Your task to perform on an android device: Open Chrome and go to settings Image 0: 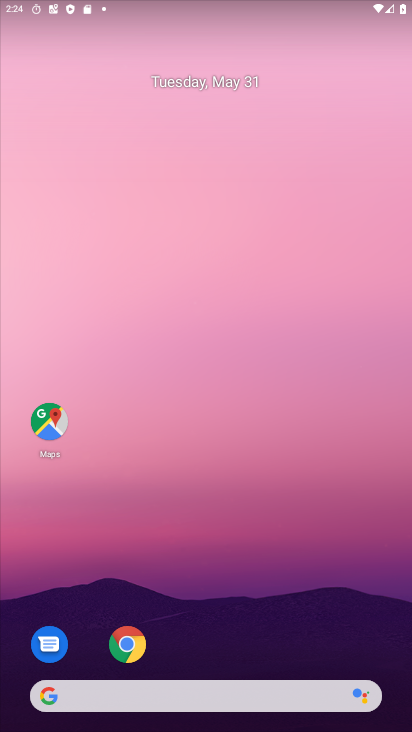
Step 0: click (134, 649)
Your task to perform on an android device: Open Chrome and go to settings Image 1: 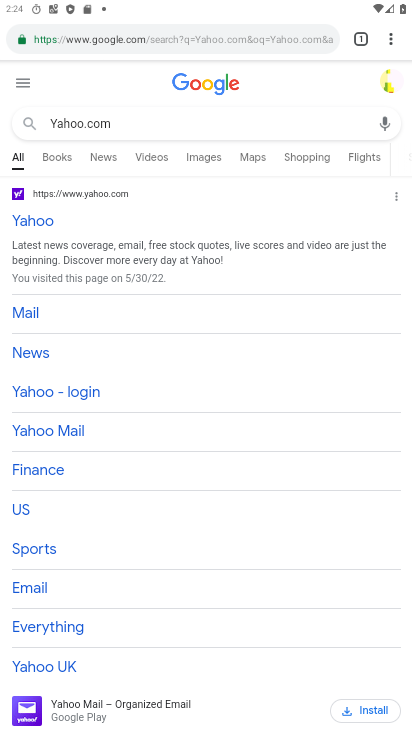
Step 1: click (392, 35)
Your task to perform on an android device: Open Chrome and go to settings Image 2: 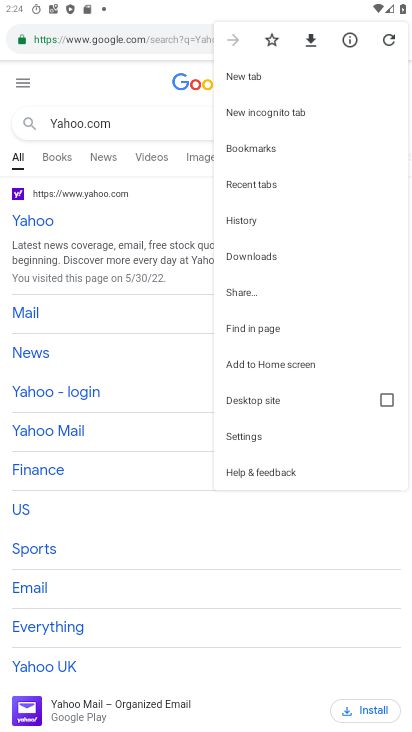
Step 2: click (246, 432)
Your task to perform on an android device: Open Chrome and go to settings Image 3: 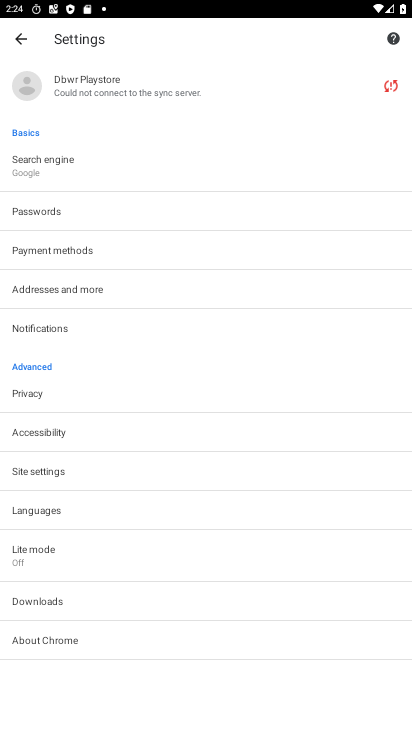
Step 3: task complete